Your task to perform on an android device: open app "Facebook Messenger" (install if not already installed) and enter user name: "divorce@inbox.com" and password: "caviar" Image 0: 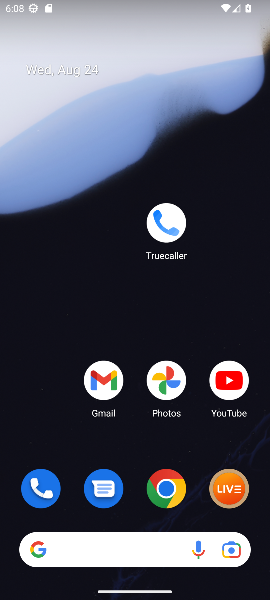
Step 0: drag from (122, 524) to (119, 109)
Your task to perform on an android device: open app "Facebook Messenger" (install if not already installed) and enter user name: "divorce@inbox.com" and password: "caviar" Image 1: 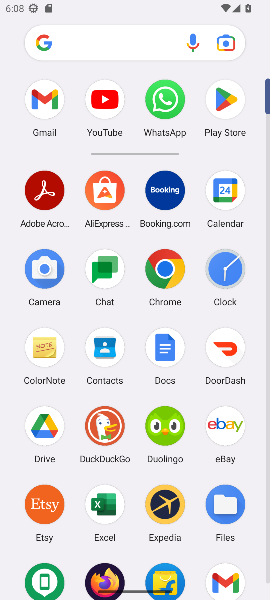
Step 1: click (223, 119)
Your task to perform on an android device: open app "Facebook Messenger" (install if not already installed) and enter user name: "divorce@inbox.com" and password: "caviar" Image 2: 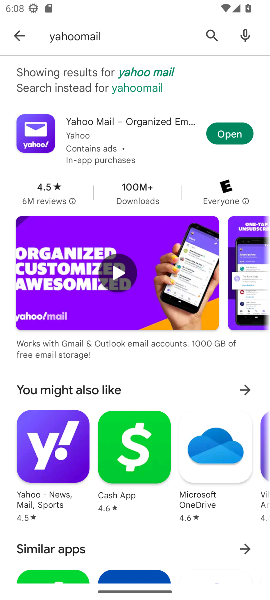
Step 2: click (204, 48)
Your task to perform on an android device: open app "Facebook Messenger" (install if not already installed) and enter user name: "divorce@inbox.com" and password: "caviar" Image 3: 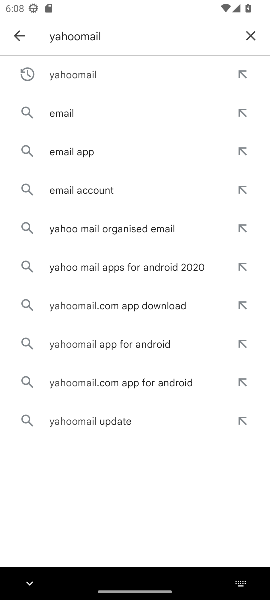
Step 3: click (251, 36)
Your task to perform on an android device: open app "Facebook Messenger" (install if not already installed) and enter user name: "divorce@inbox.com" and password: "caviar" Image 4: 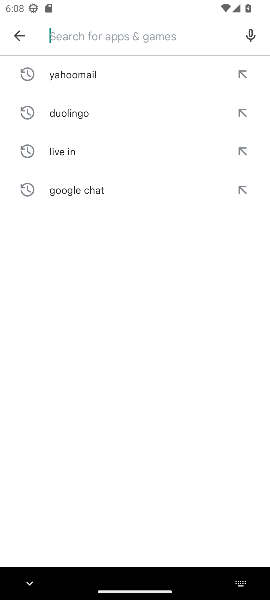
Step 4: type "face"
Your task to perform on an android device: open app "Facebook Messenger" (install if not already installed) and enter user name: "divorce@inbox.com" and password: "caviar" Image 5: 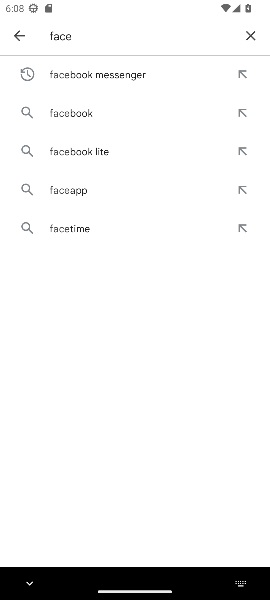
Step 5: click (89, 61)
Your task to perform on an android device: open app "Facebook Messenger" (install if not already installed) and enter user name: "divorce@inbox.com" and password: "caviar" Image 6: 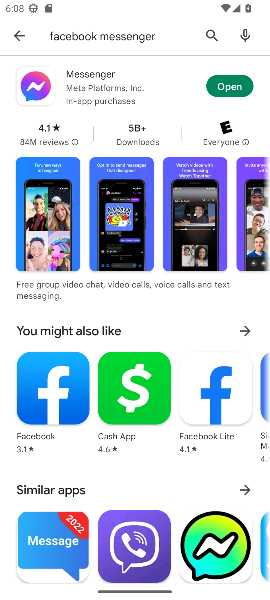
Step 6: click (217, 91)
Your task to perform on an android device: open app "Facebook Messenger" (install if not already installed) and enter user name: "divorce@inbox.com" and password: "caviar" Image 7: 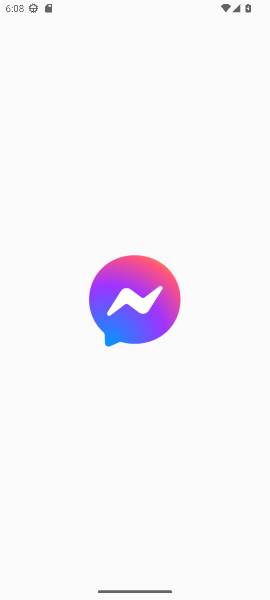
Step 7: task complete